Your task to perform on an android device: Show me popular games on the Play Store Image 0: 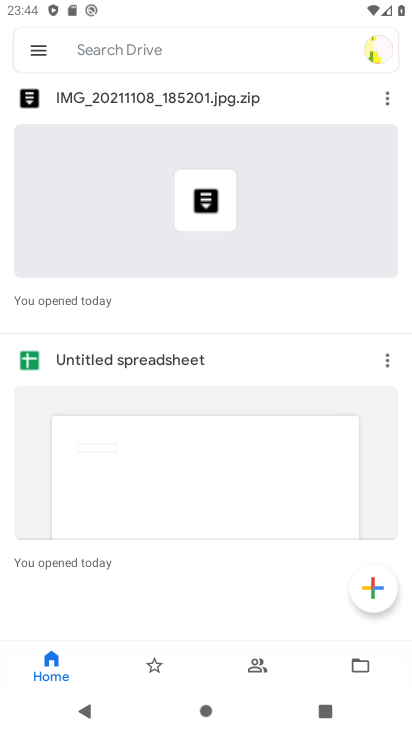
Step 0: press home button
Your task to perform on an android device: Show me popular games on the Play Store Image 1: 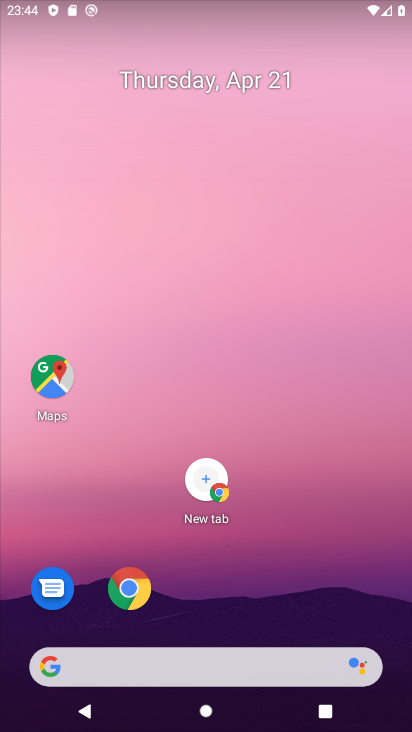
Step 1: drag from (212, 432) to (227, 127)
Your task to perform on an android device: Show me popular games on the Play Store Image 2: 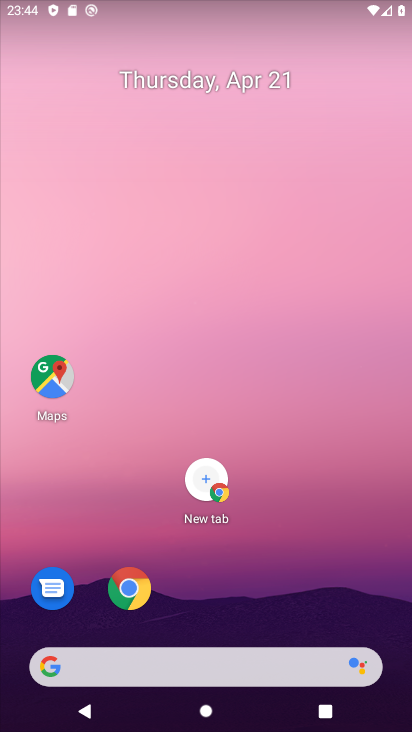
Step 2: drag from (223, 482) to (274, 39)
Your task to perform on an android device: Show me popular games on the Play Store Image 3: 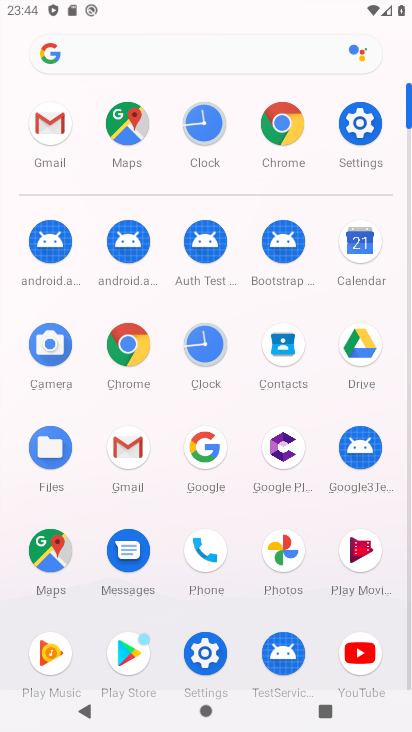
Step 3: click (130, 651)
Your task to perform on an android device: Show me popular games on the Play Store Image 4: 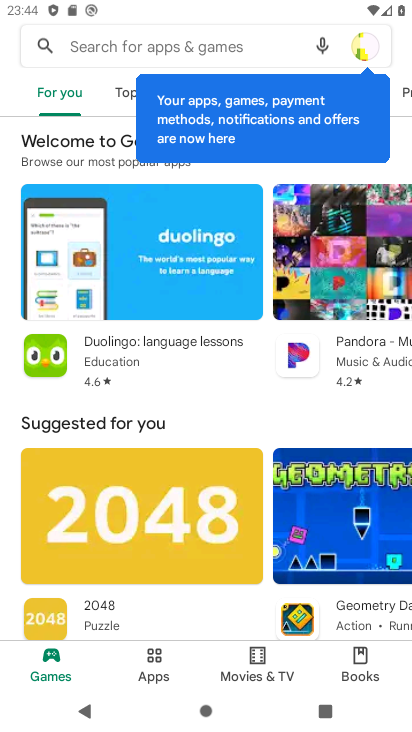
Step 4: click (12, 96)
Your task to perform on an android device: Show me popular games on the Play Store Image 5: 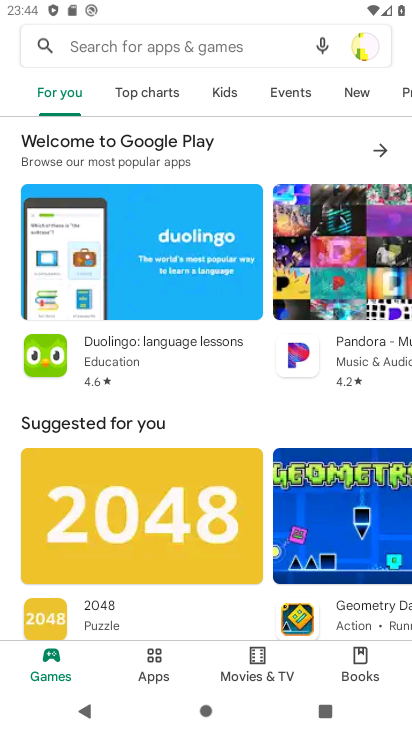
Step 5: click (171, 89)
Your task to perform on an android device: Show me popular games on the Play Store Image 6: 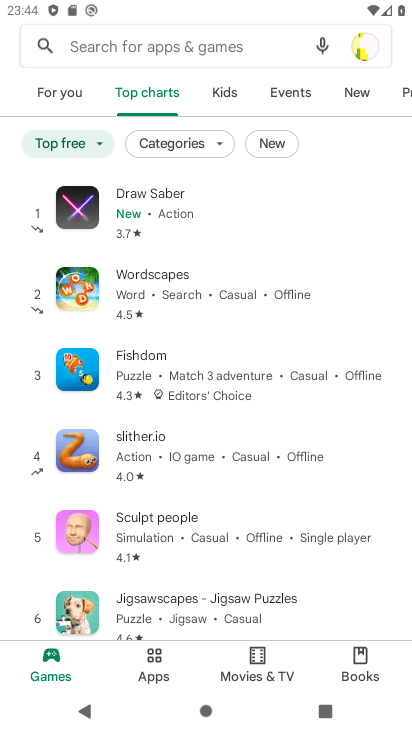
Step 6: task complete